Your task to perform on an android device: open chrome privacy settings Image 0: 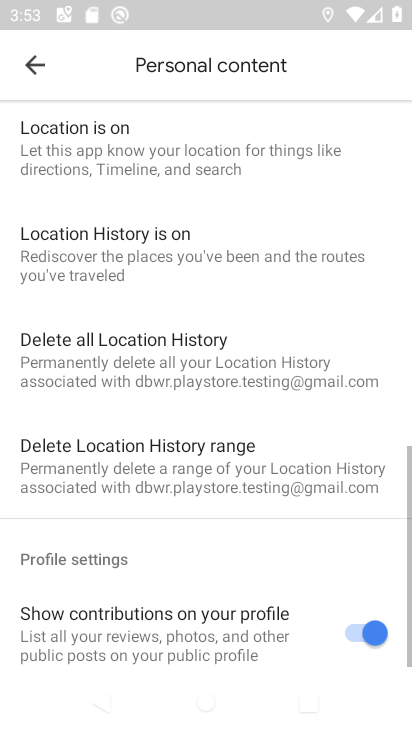
Step 0: press home button
Your task to perform on an android device: open chrome privacy settings Image 1: 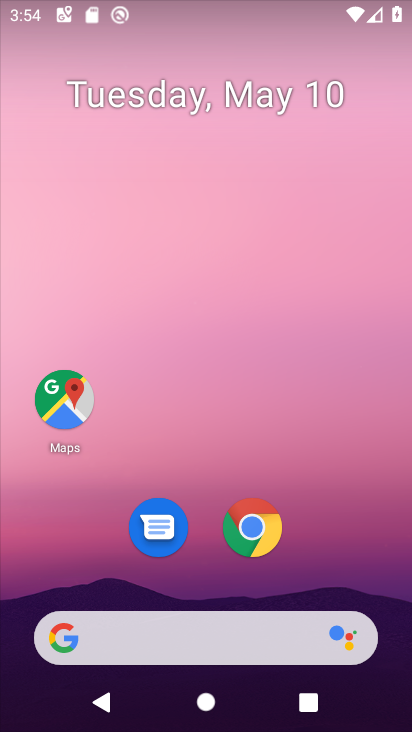
Step 1: drag from (399, 647) to (376, 240)
Your task to perform on an android device: open chrome privacy settings Image 2: 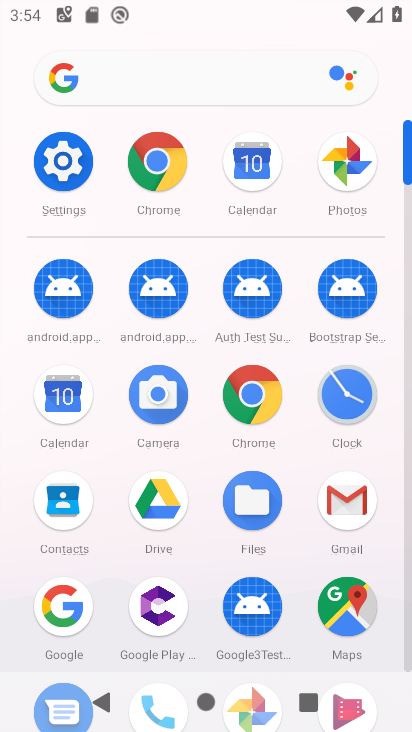
Step 2: click (158, 168)
Your task to perform on an android device: open chrome privacy settings Image 3: 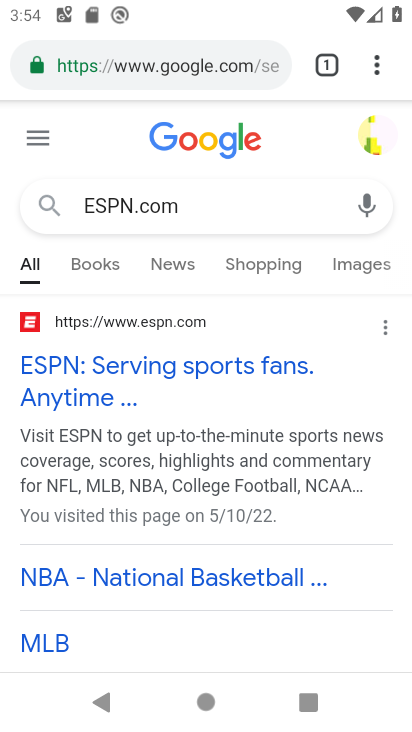
Step 3: click (374, 60)
Your task to perform on an android device: open chrome privacy settings Image 4: 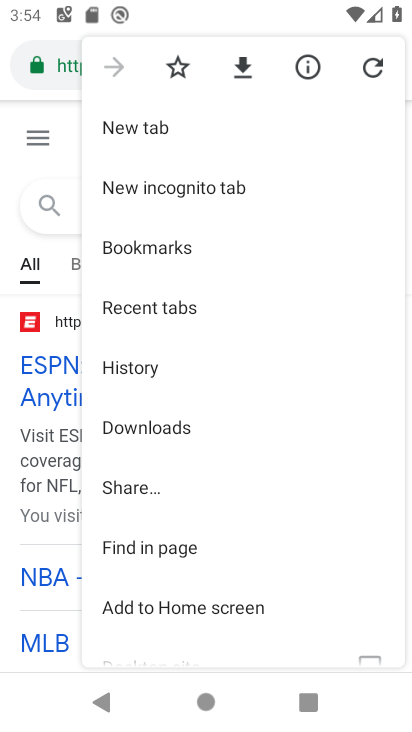
Step 4: drag from (309, 609) to (304, 351)
Your task to perform on an android device: open chrome privacy settings Image 5: 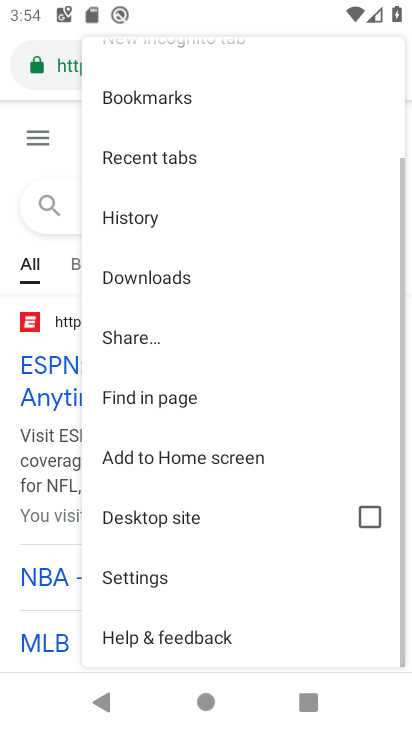
Step 5: click (143, 568)
Your task to perform on an android device: open chrome privacy settings Image 6: 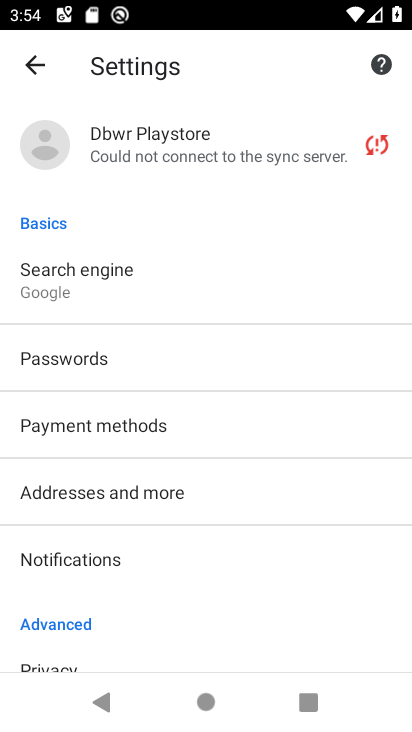
Step 6: drag from (230, 639) to (234, 305)
Your task to perform on an android device: open chrome privacy settings Image 7: 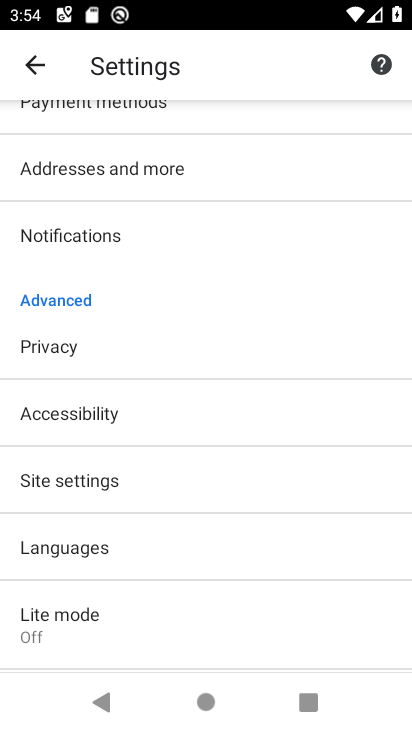
Step 7: click (52, 343)
Your task to perform on an android device: open chrome privacy settings Image 8: 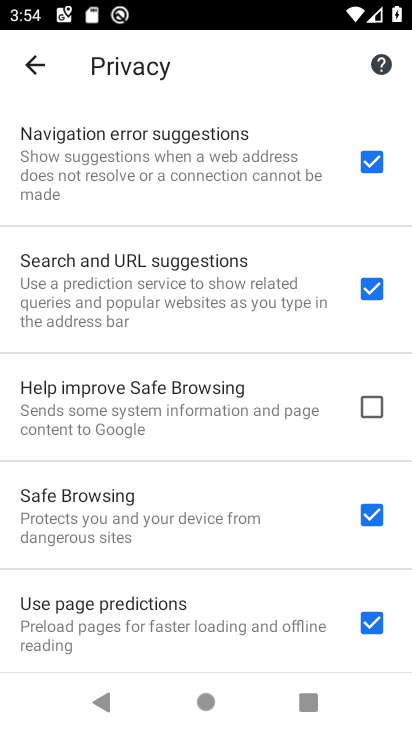
Step 8: task complete